Your task to perform on an android device: What's on my calendar today? Image 0: 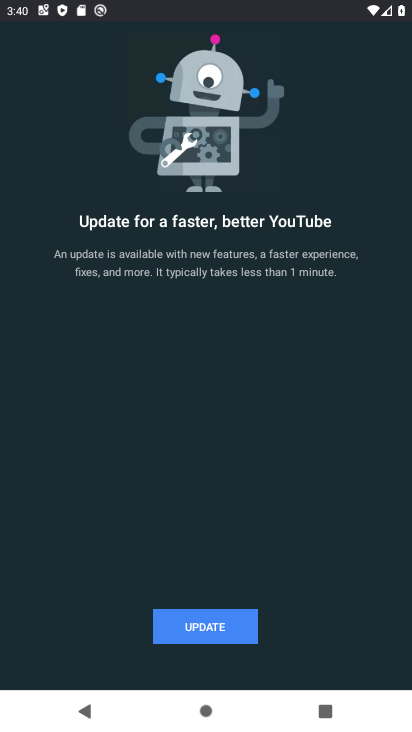
Step 0: press home button
Your task to perform on an android device: What's on my calendar today? Image 1: 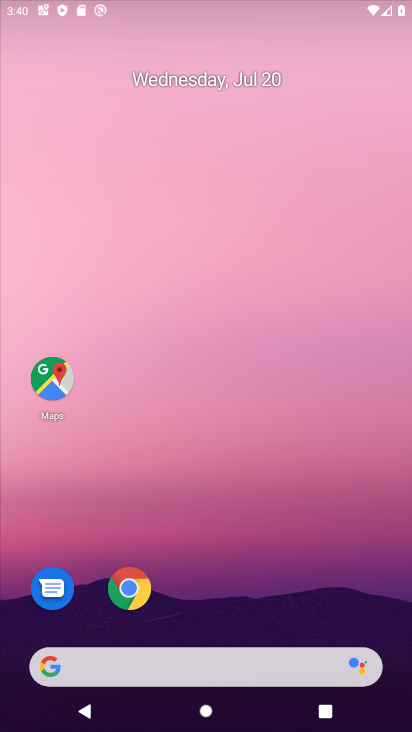
Step 1: drag from (318, 625) to (296, 59)
Your task to perform on an android device: What's on my calendar today? Image 2: 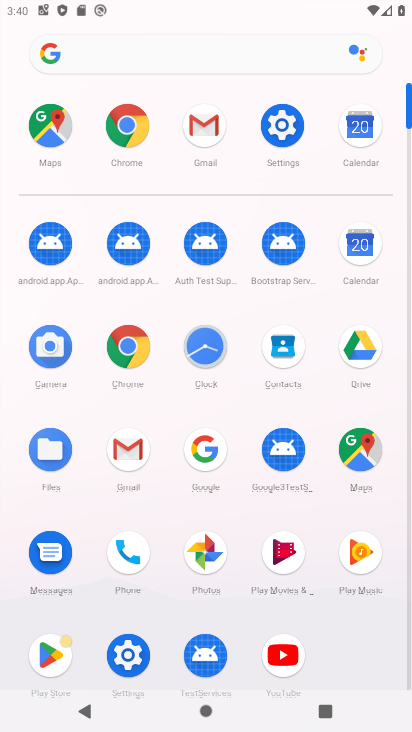
Step 2: click (361, 259)
Your task to perform on an android device: What's on my calendar today? Image 3: 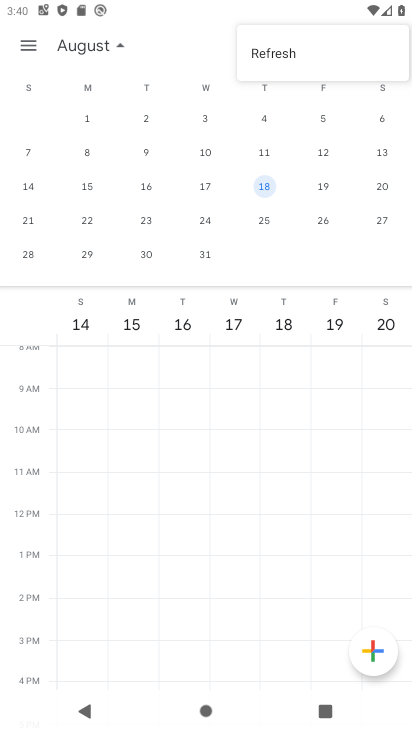
Step 3: click (263, 169)
Your task to perform on an android device: What's on my calendar today? Image 4: 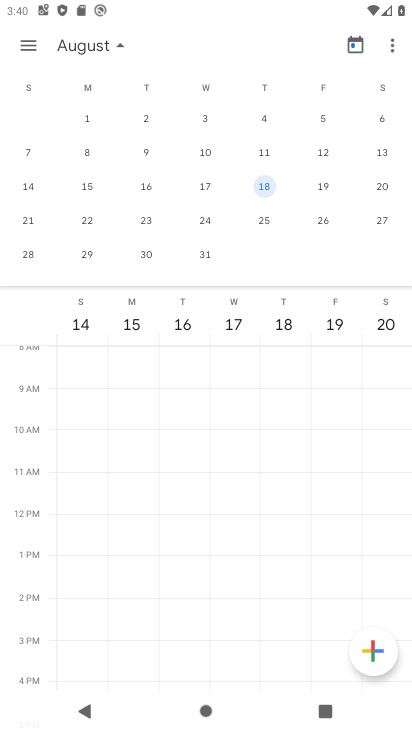
Step 4: click (65, 40)
Your task to perform on an android device: What's on my calendar today? Image 5: 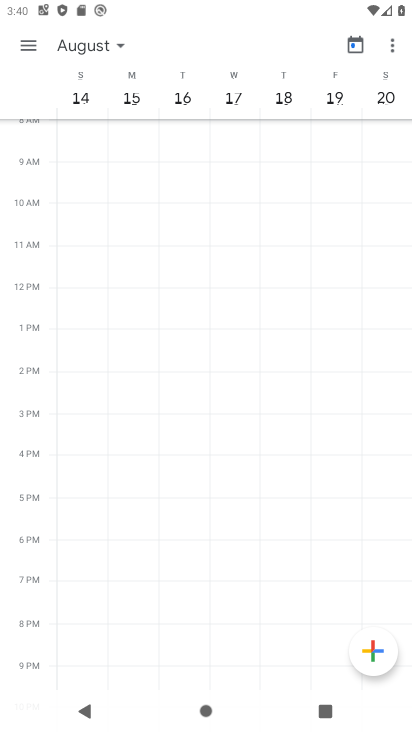
Step 5: click (70, 48)
Your task to perform on an android device: What's on my calendar today? Image 6: 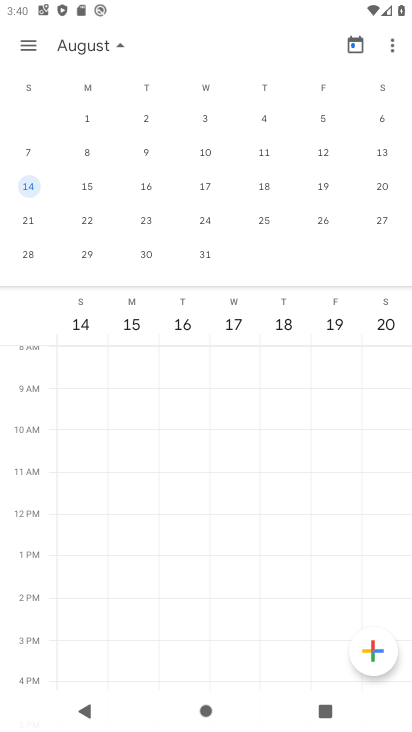
Step 6: drag from (61, 153) to (411, 206)
Your task to perform on an android device: What's on my calendar today? Image 7: 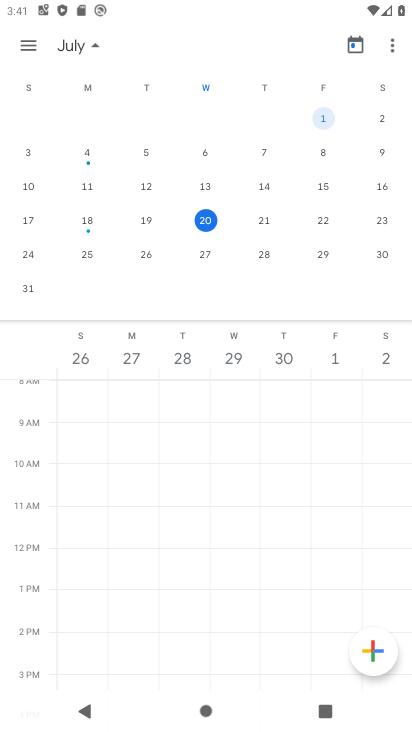
Step 7: click (206, 222)
Your task to perform on an android device: What's on my calendar today? Image 8: 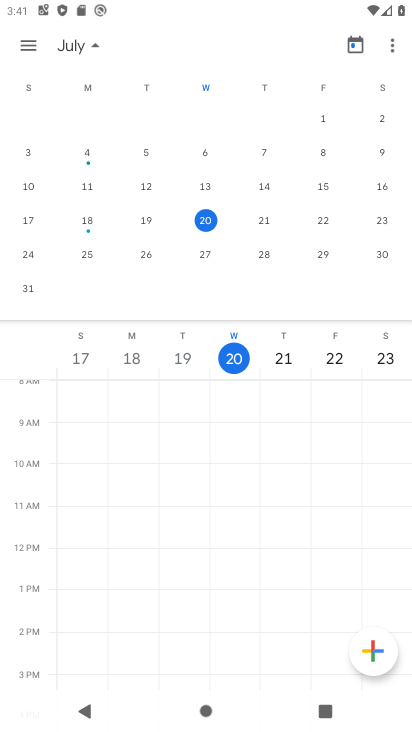
Step 8: task complete